Your task to perform on an android device: change notifications settings Image 0: 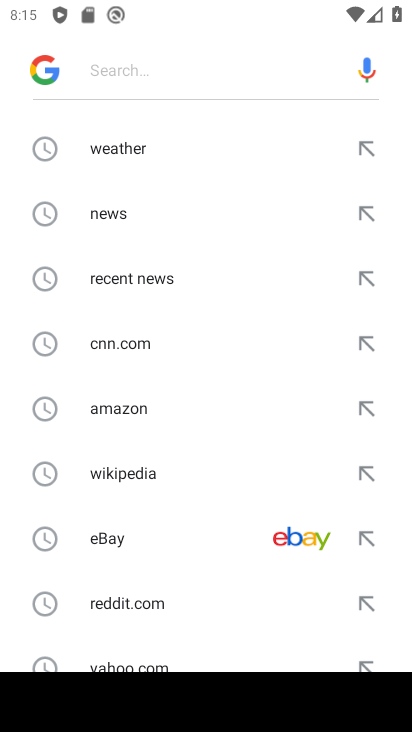
Step 0: press home button
Your task to perform on an android device: change notifications settings Image 1: 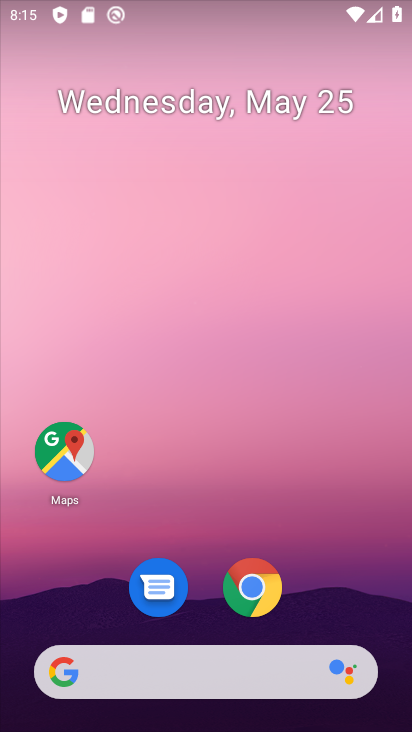
Step 1: drag from (334, 565) to (350, 87)
Your task to perform on an android device: change notifications settings Image 2: 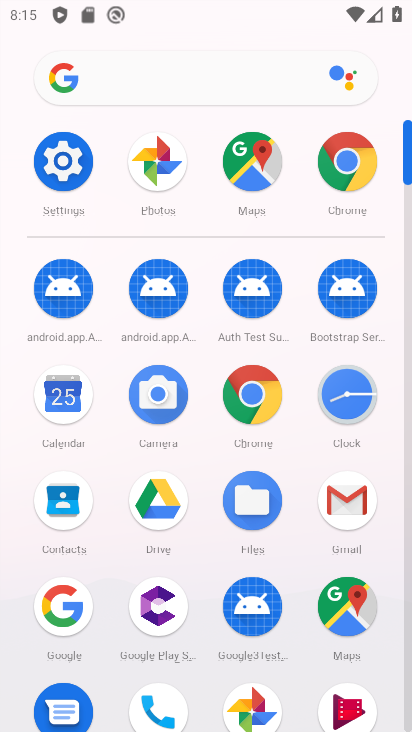
Step 2: click (57, 161)
Your task to perform on an android device: change notifications settings Image 3: 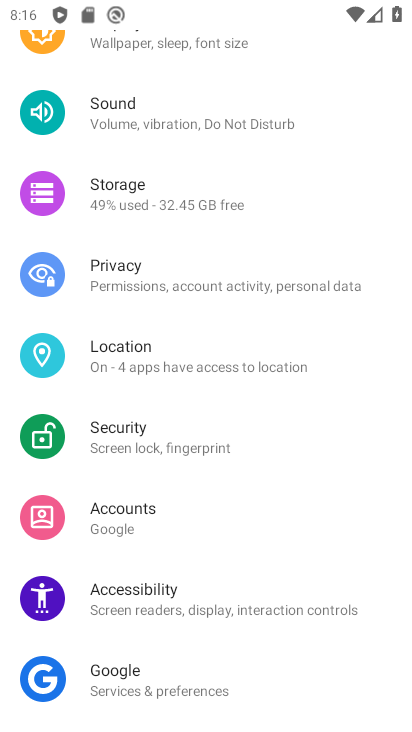
Step 3: drag from (308, 146) to (269, 725)
Your task to perform on an android device: change notifications settings Image 4: 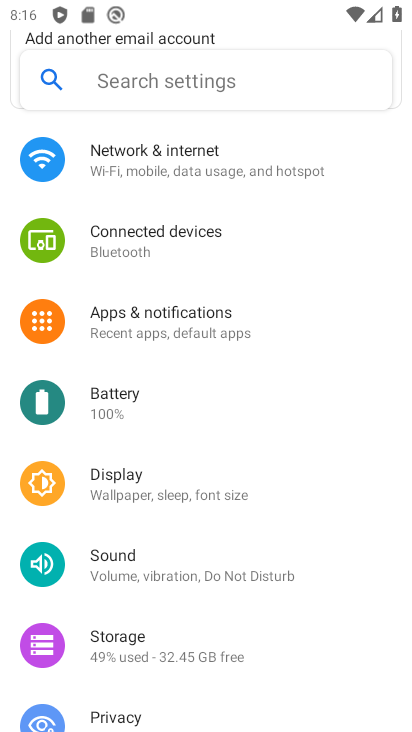
Step 4: click (210, 324)
Your task to perform on an android device: change notifications settings Image 5: 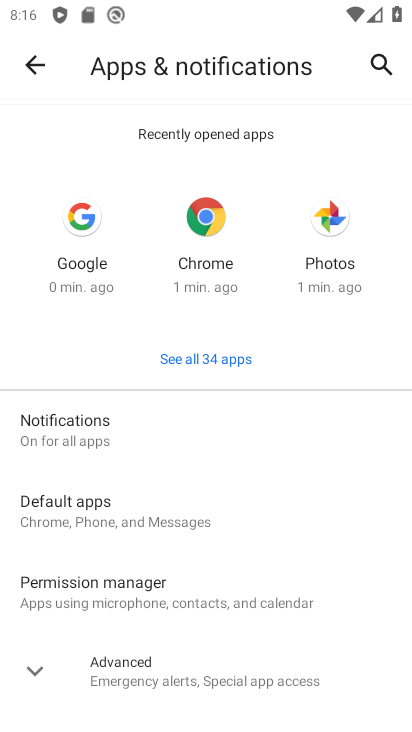
Step 5: click (67, 431)
Your task to perform on an android device: change notifications settings Image 6: 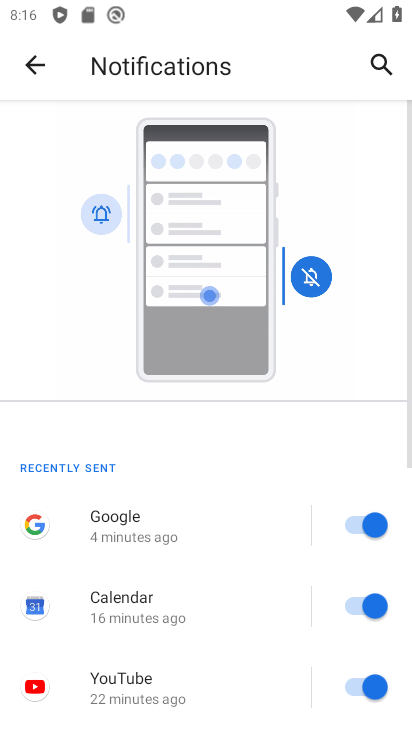
Step 6: drag from (244, 539) to (319, 213)
Your task to perform on an android device: change notifications settings Image 7: 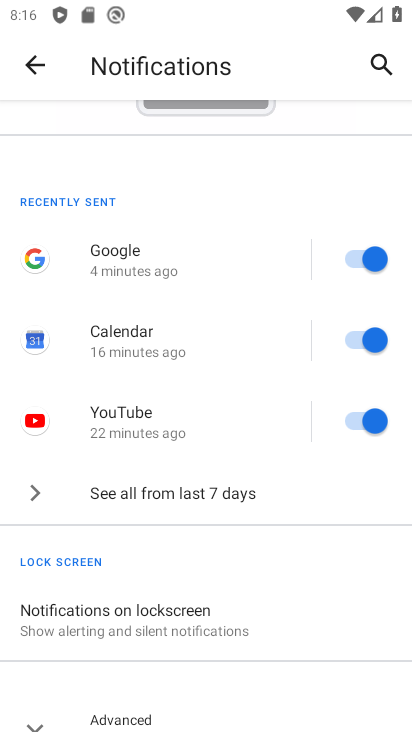
Step 7: click (360, 418)
Your task to perform on an android device: change notifications settings Image 8: 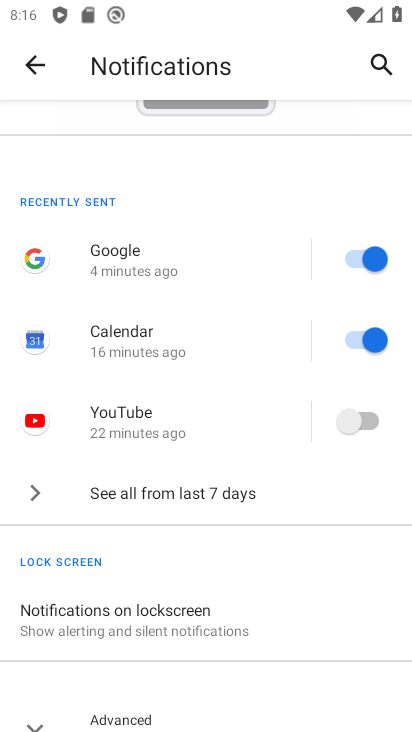
Step 8: task complete